Your task to perform on an android device: Open Yahoo.com Image 0: 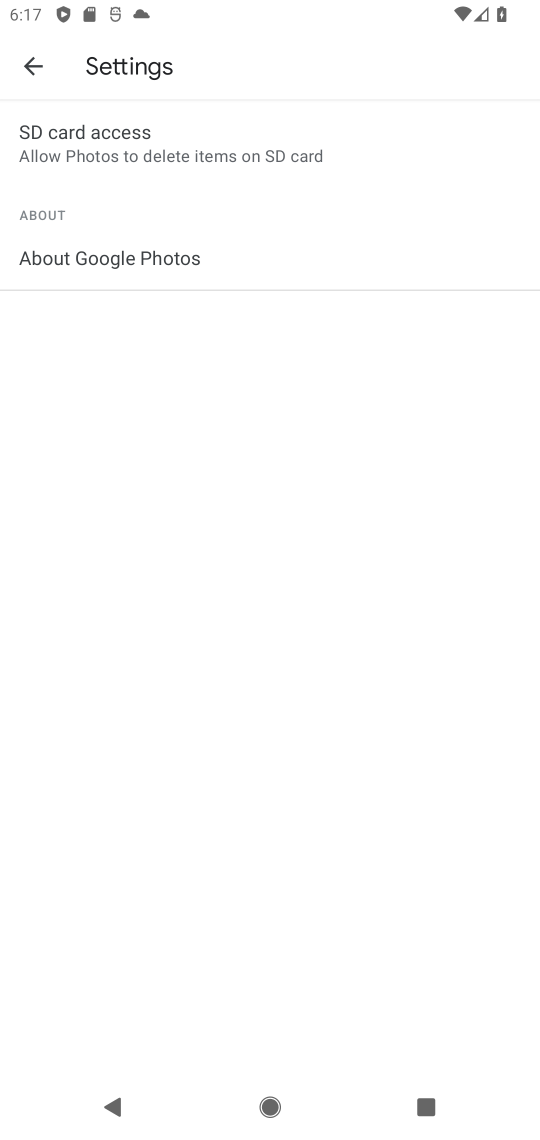
Step 0: press home button
Your task to perform on an android device: Open Yahoo.com Image 1: 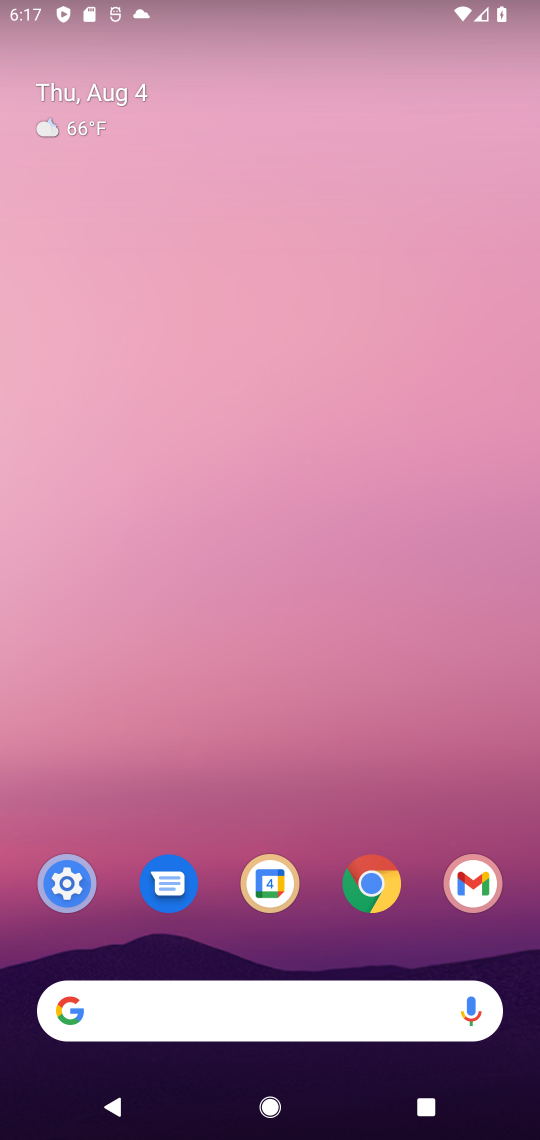
Step 1: click (171, 1018)
Your task to perform on an android device: Open Yahoo.com Image 2: 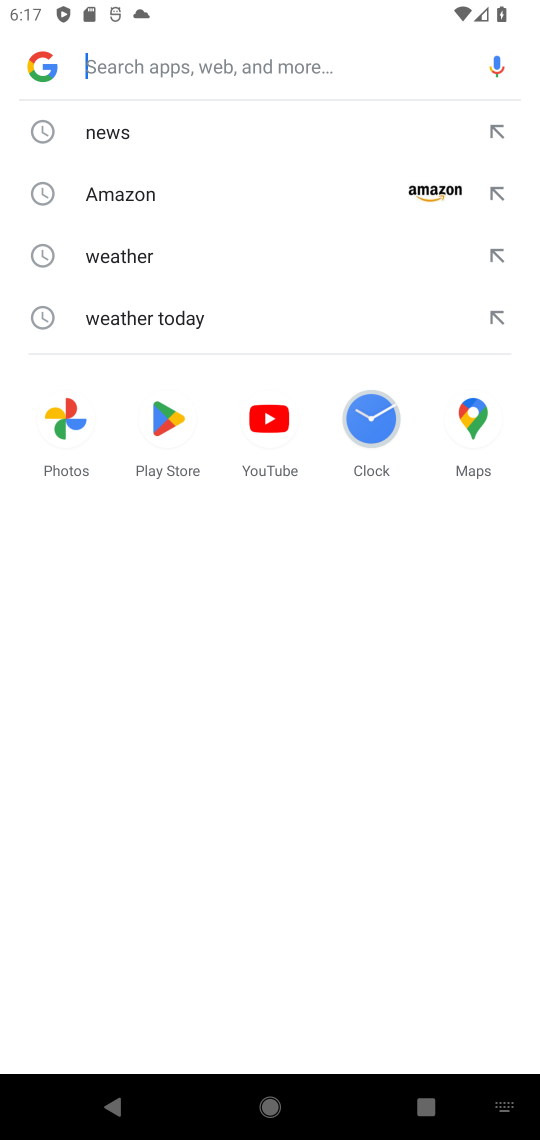
Step 2: type "yahoo.com"
Your task to perform on an android device: Open Yahoo.com Image 3: 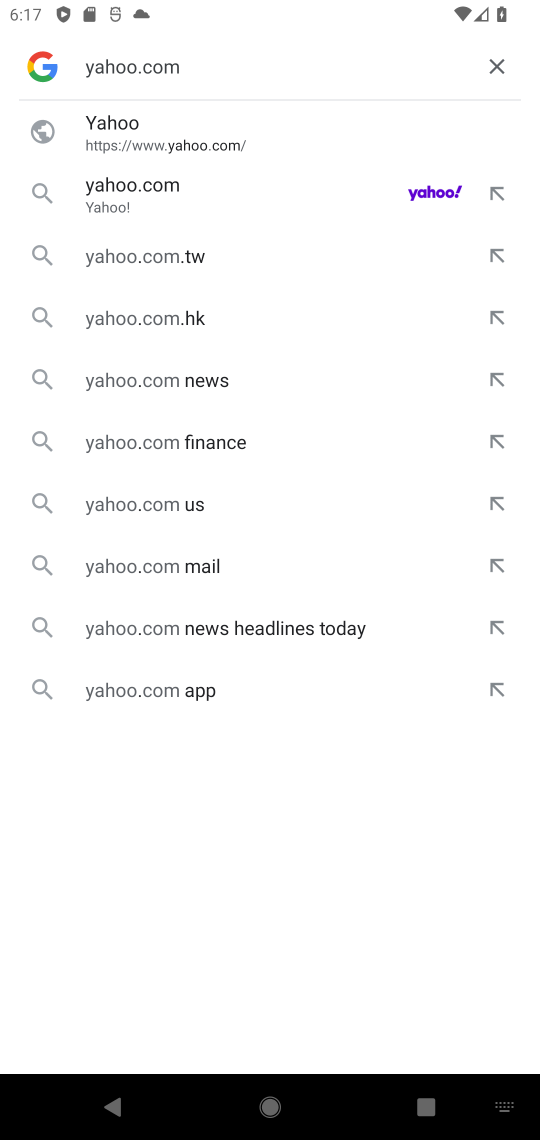
Step 3: click (109, 205)
Your task to perform on an android device: Open Yahoo.com Image 4: 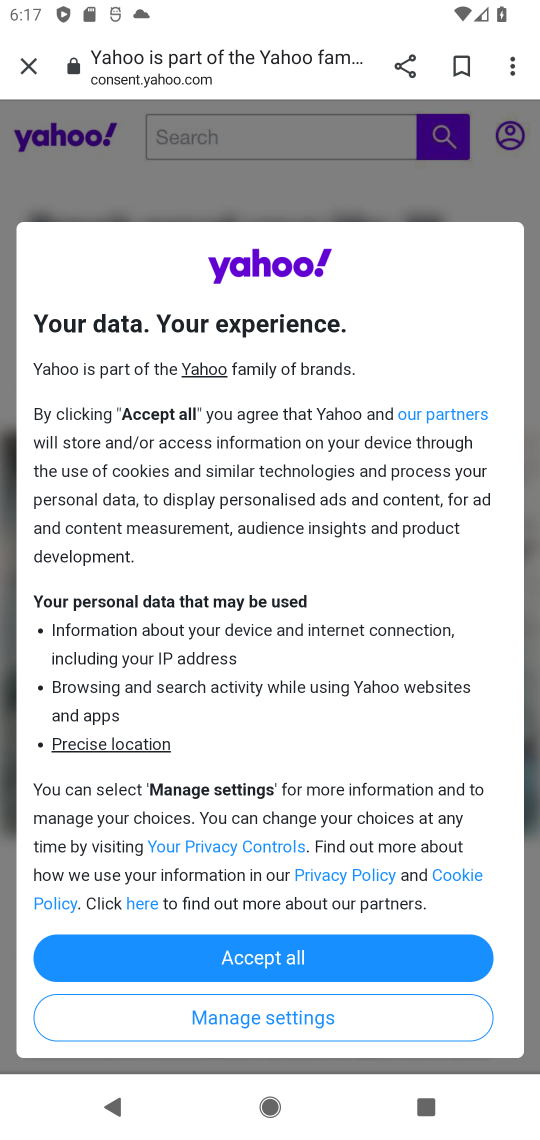
Step 4: task complete